Your task to perform on an android device: open wifi settings Image 0: 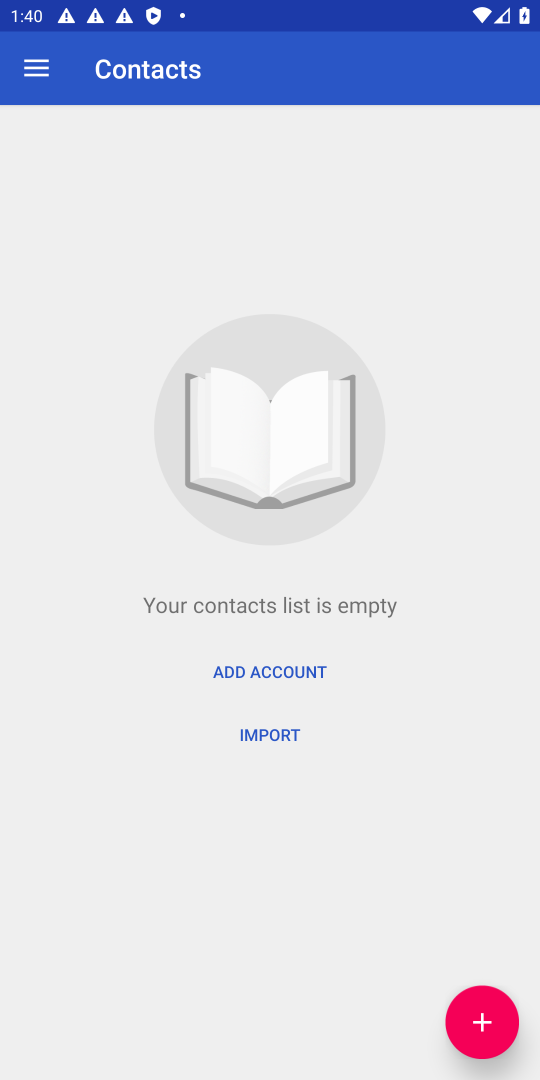
Step 0: press back button
Your task to perform on an android device: open wifi settings Image 1: 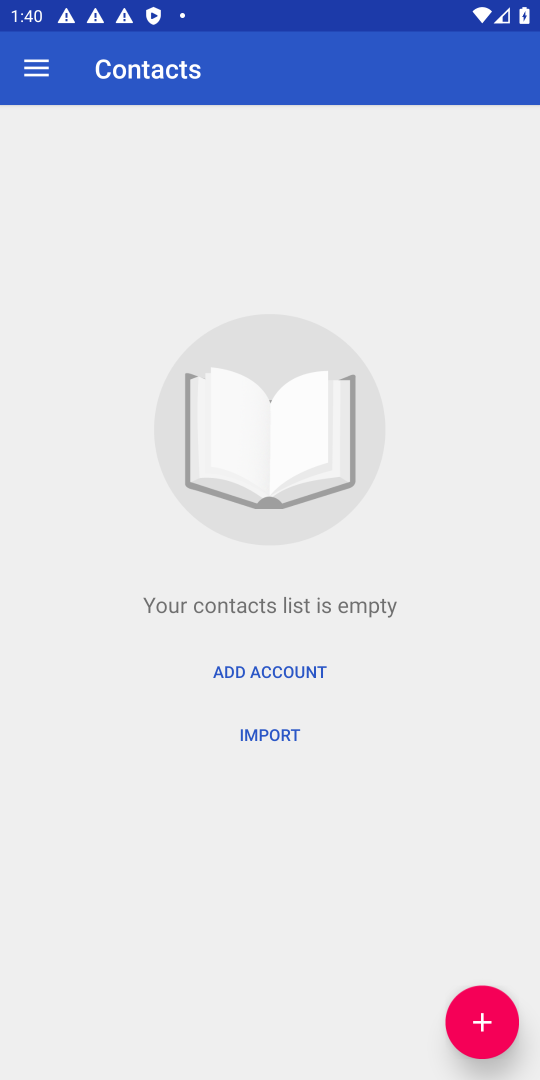
Step 1: press back button
Your task to perform on an android device: open wifi settings Image 2: 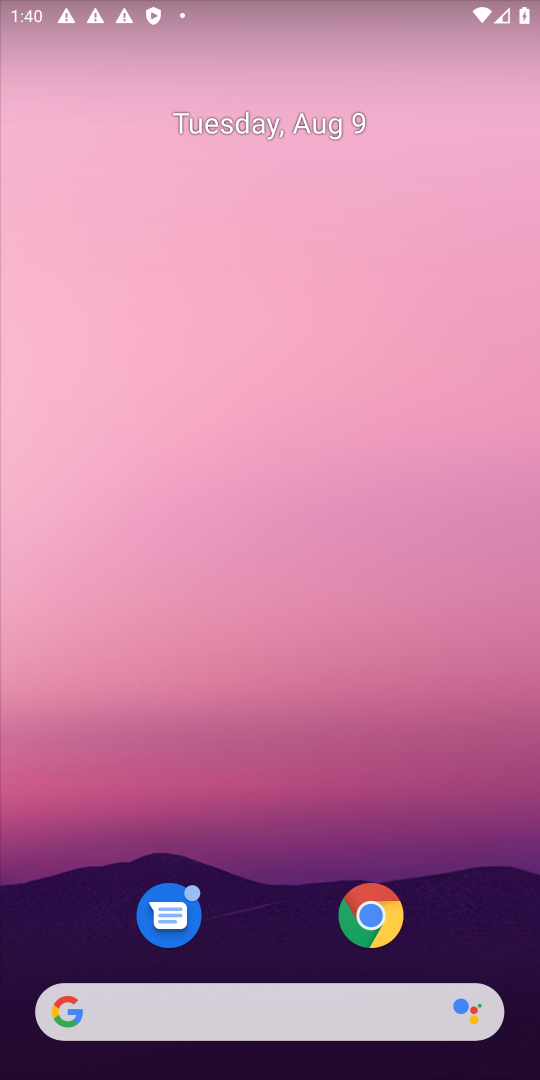
Step 2: press back button
Your task to perform on an android device: open wifi settings Image 3: 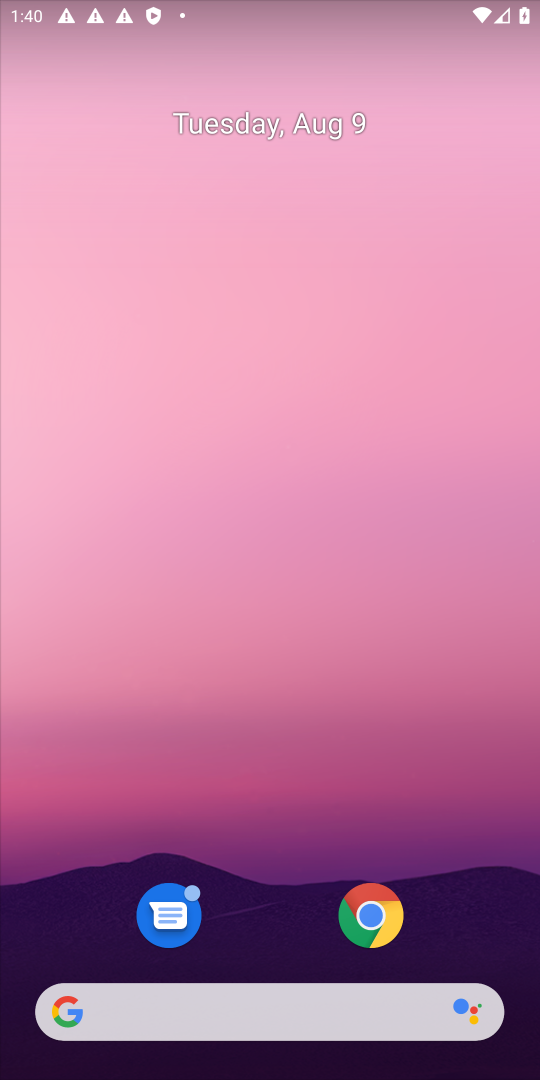
Step 3: drag from (180, 446) to (263, 167)
Your task to perform on an android device: open wifi settings Image 4: 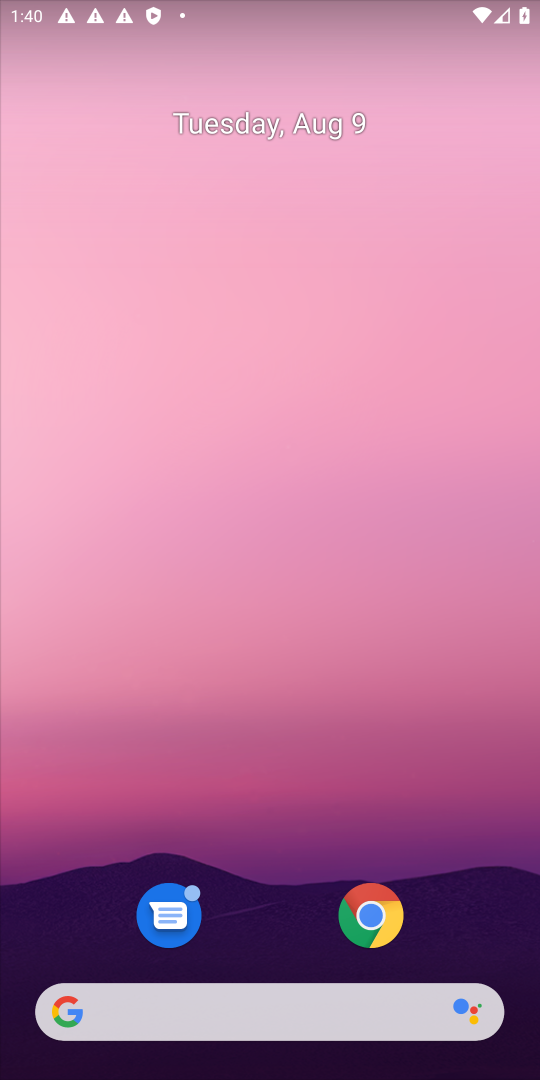
Step 4: drag from (279, 467) to (239, 184)
Your task to perform on an android device: open wifi settings Image 5: 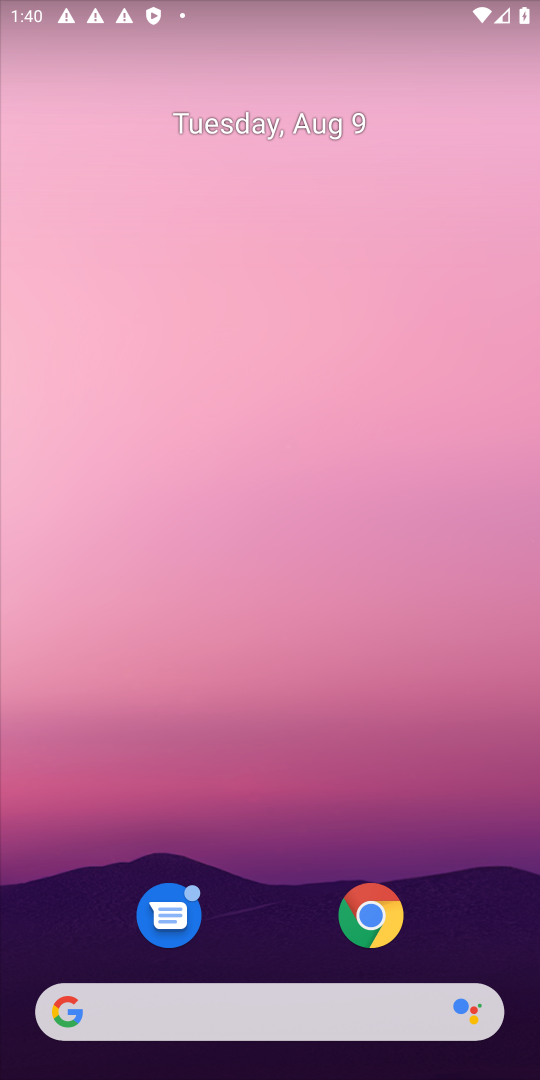
Step 5: drag from (264, 804) to (277, 471)
Your task to perform on an android device: open wifi settings Image 6: 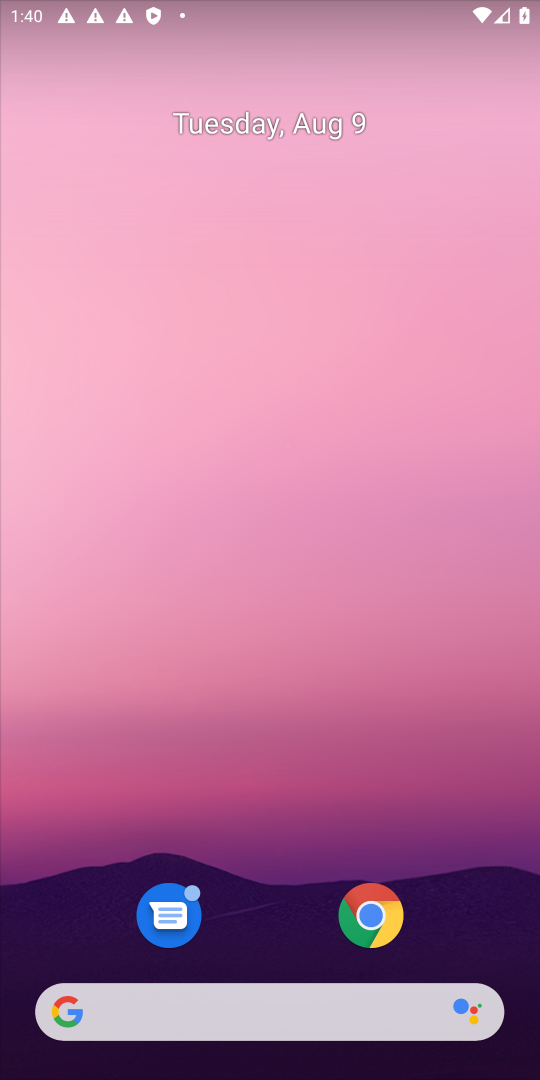
Step 6: drag from (305, 962) to (206, 290)
Your task to perform on an android device: open wifi settings Image 7: 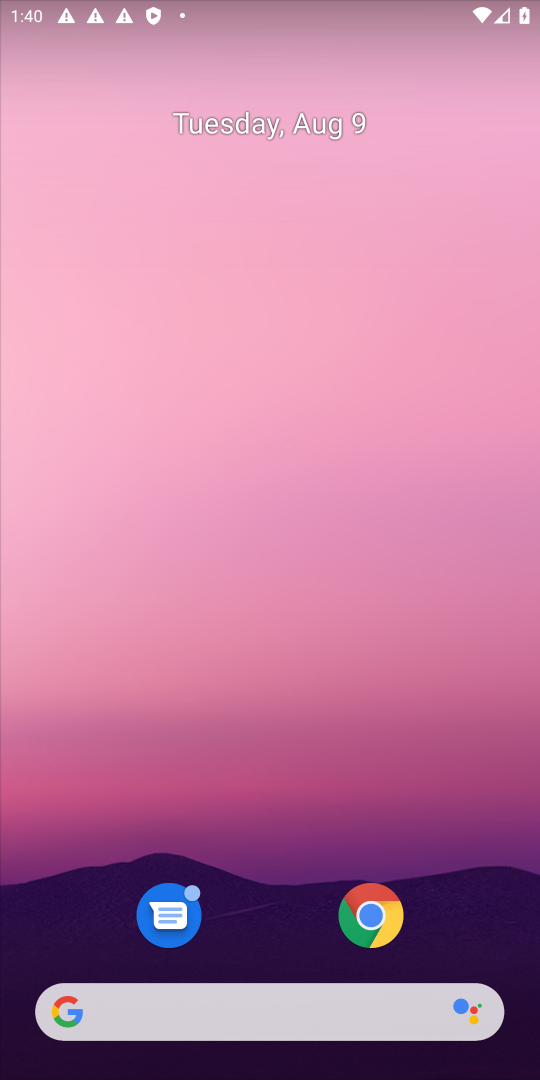
Step 7: drag from (263, 738) to (203, 341)
Your task to perform on an android device: open wifi settings Image 8: 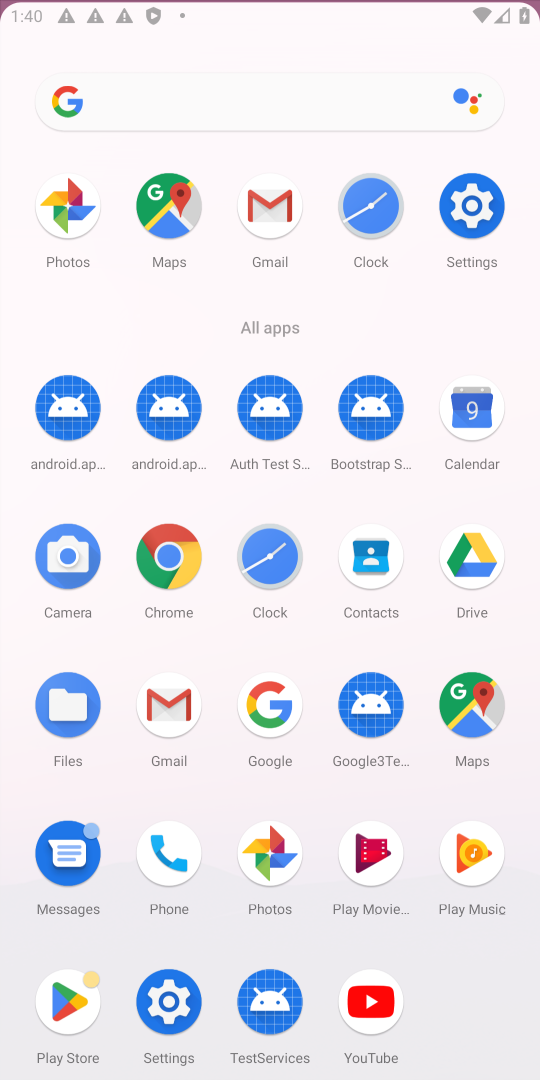
Step 8: drag from (241, 659) to (241, 377)
Your task to perform on an android device: open wifi settings Image 9: 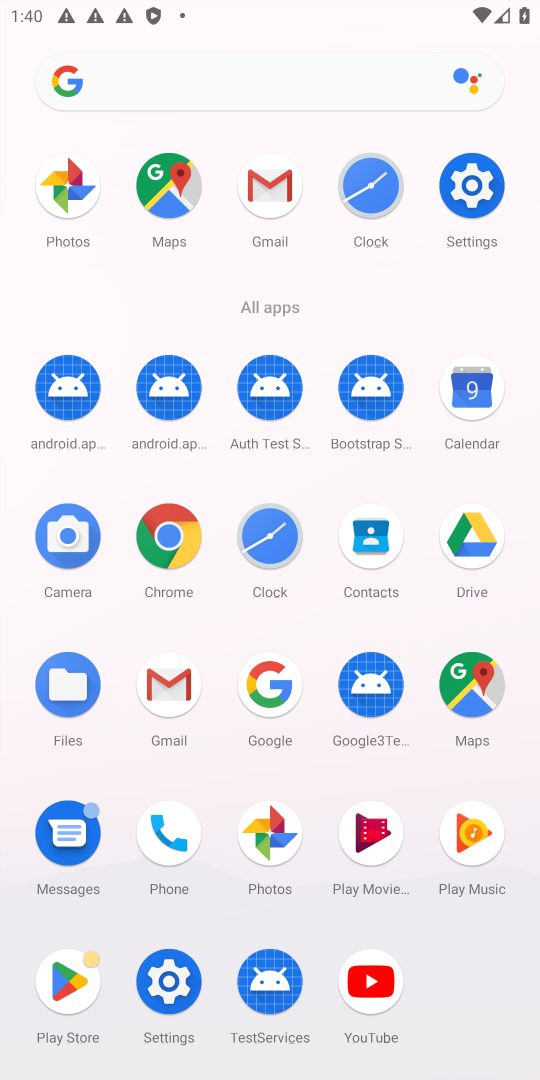
Step 9: click (485, 184)
Your task to perform on an android device: open wifi settings Image 10: 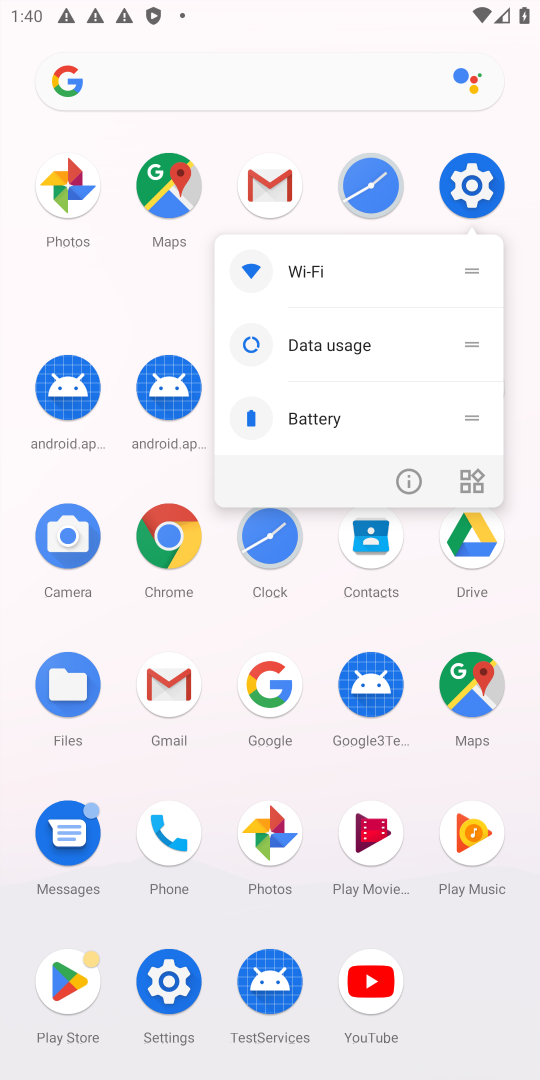
Step 10: click (475, 197)
Your task to perform on an android device: open wifi settings Image 11: 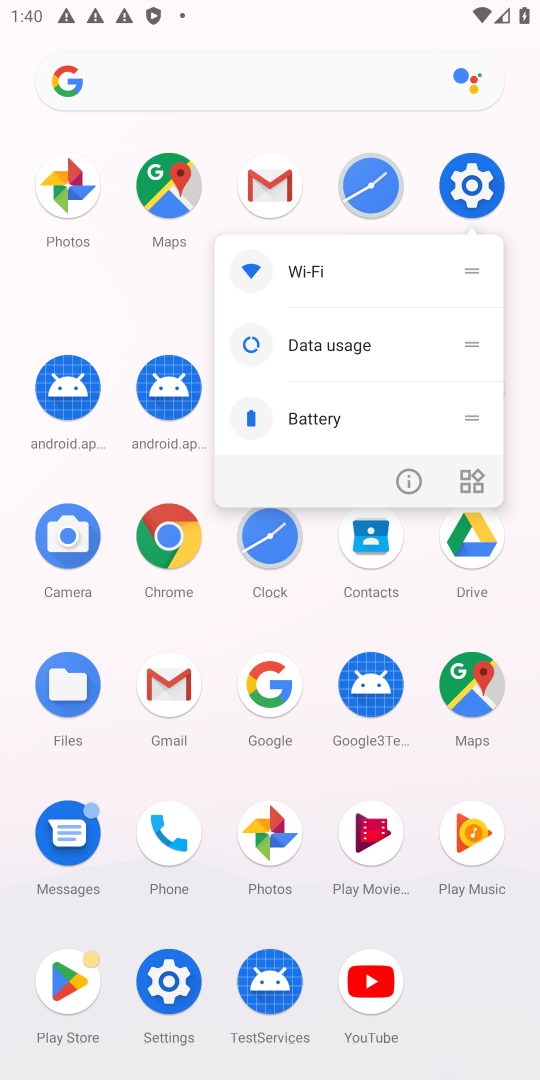
Step 11: click (473, 195)
Your task to perform on an android device: open wifi settings Image 12: 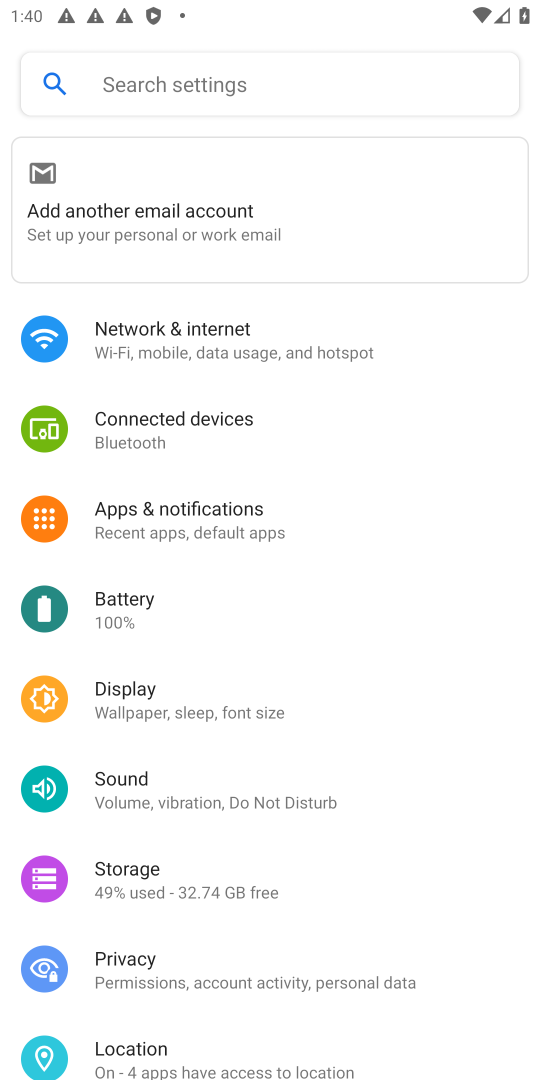
Step 12: click (186, 330)
Your task to perform on an android device: open wifi settings Image 13: 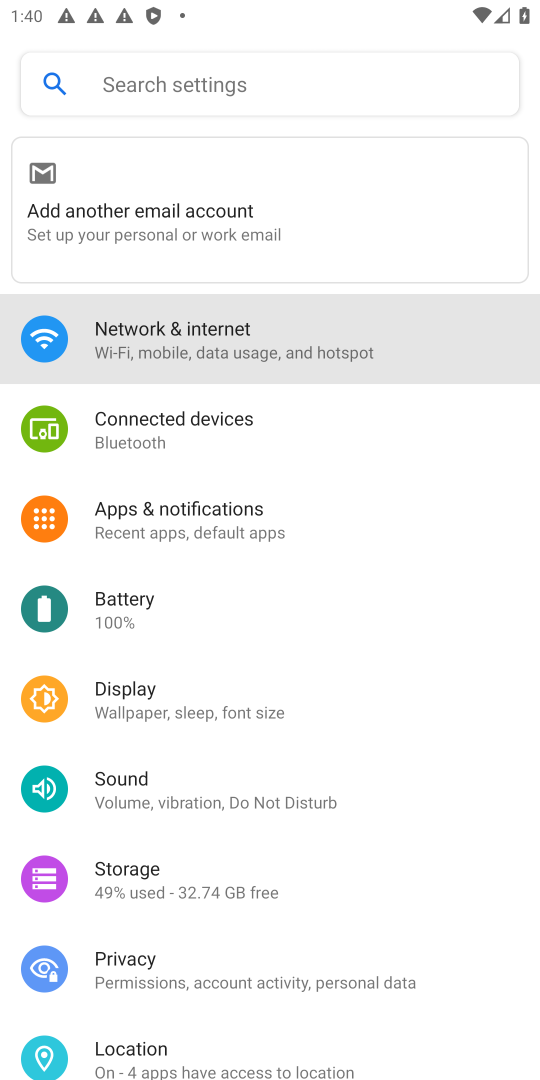
Step 13: click (194, 333)
Your task to perform on an android device: open wifi settings Image 14: 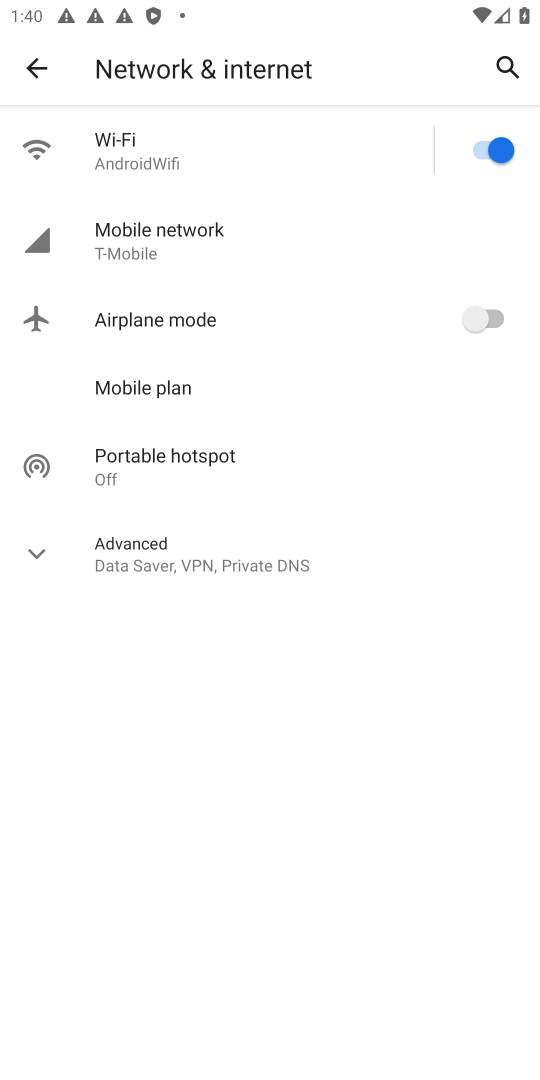
Step 14: task complete